Your task to perform on an android device: Open Maps and search for coffee Image 0: 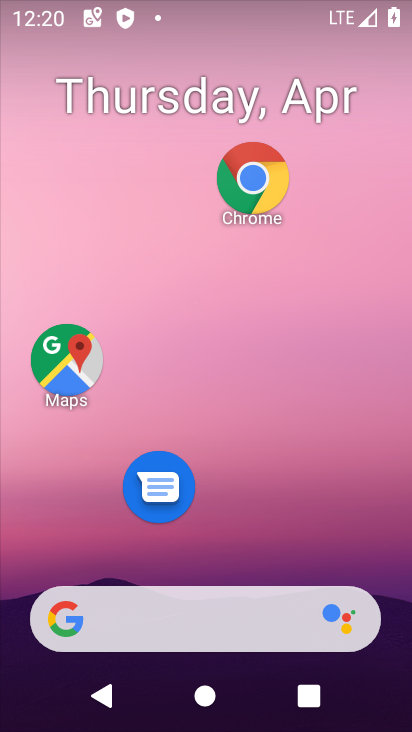
Step 0: drag from (219, 696) to (220, 128)
Your task to perform on an android device: Open Maps and search for coffee Image 1: 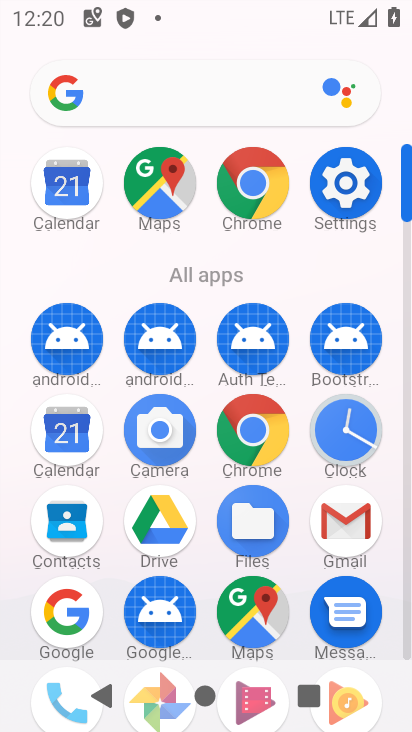
Step 1: click (253, 612)
Your task to perform on an android device: Open Maps and search for coffee Image 2: 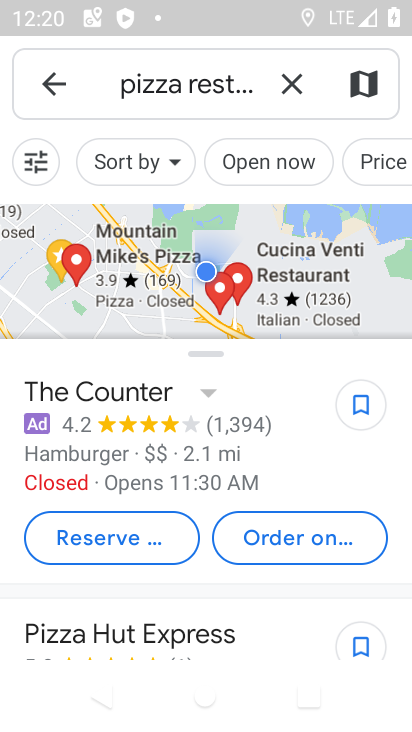
Step 2: click (292, 83)
Your task to perform on an android device: Open Maps and search for coffee Image 3: 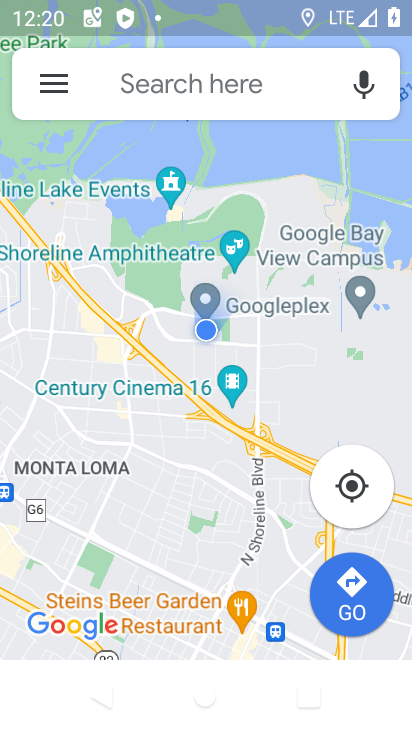
Step 3: type "coffee"
Your task to perform on an android device: Open Maps and search for coffee Image 4: 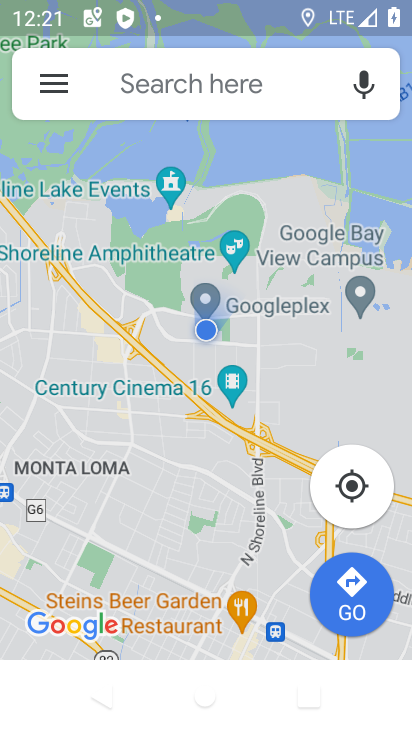
Step 4: type "coffee"
Your task to perform on an android device: Open Maps and search for coffee Image 5: 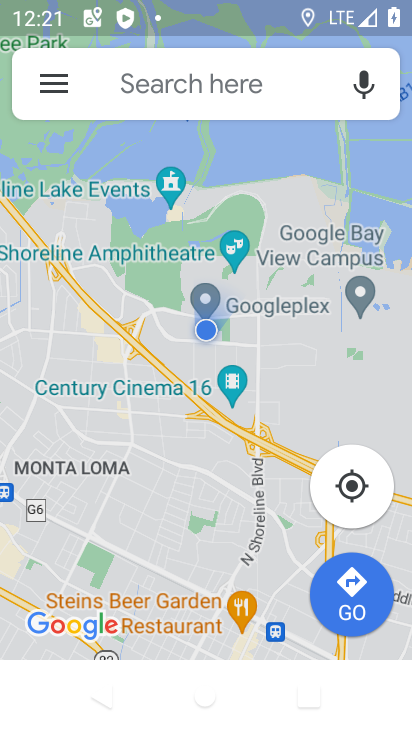
Step 5: click (175, 78)
Your task to perform on an android device: Open Maps and search for coffee Image 6: 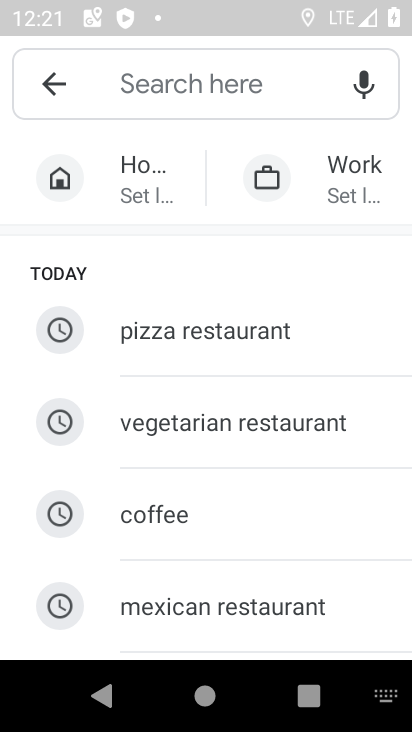
Step 6: type "coffee"
Your task to perform on an android device: Open Maps and search for coffee Image 7: 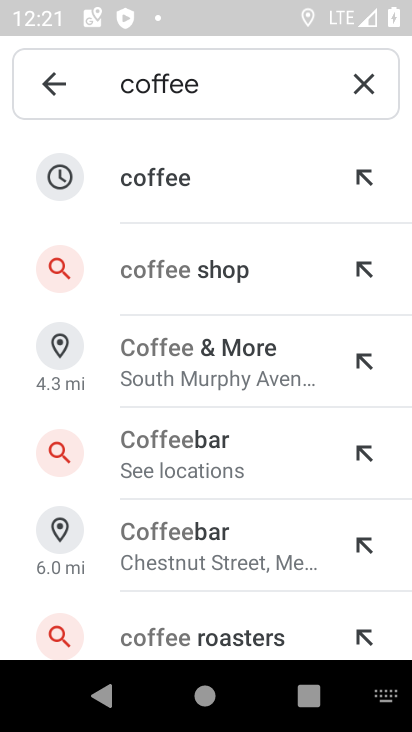
Step 7: click (166, 174)
Your task to perform on an android device: Open Maps and search for coffee Image 8: 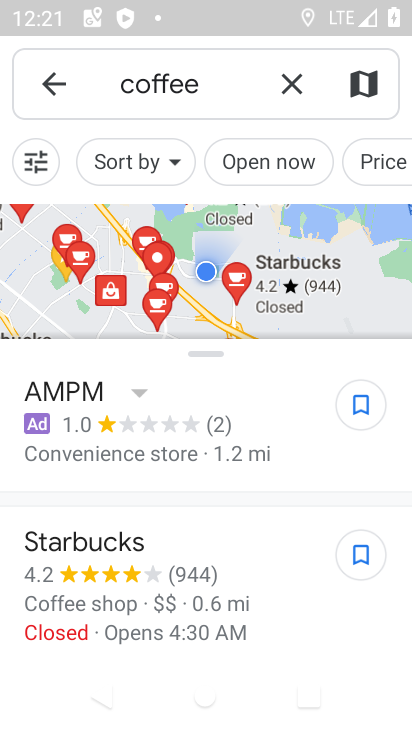
Step 8: task complete